Your task to perform on an android device: Open network settings Image 0: 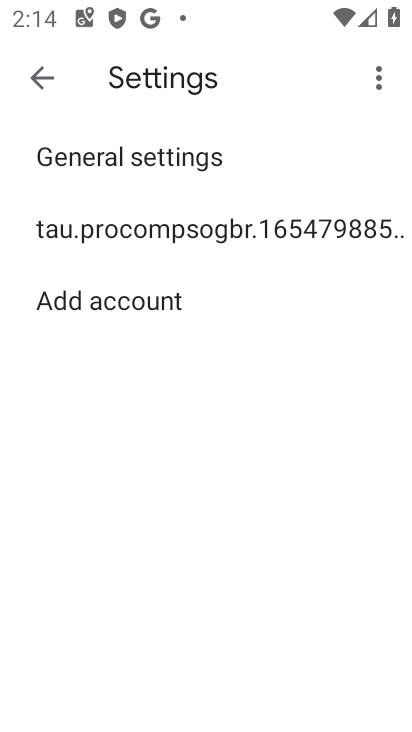
Step 0: press back button
Your task to perform on an android device: Open network settings Image 1: 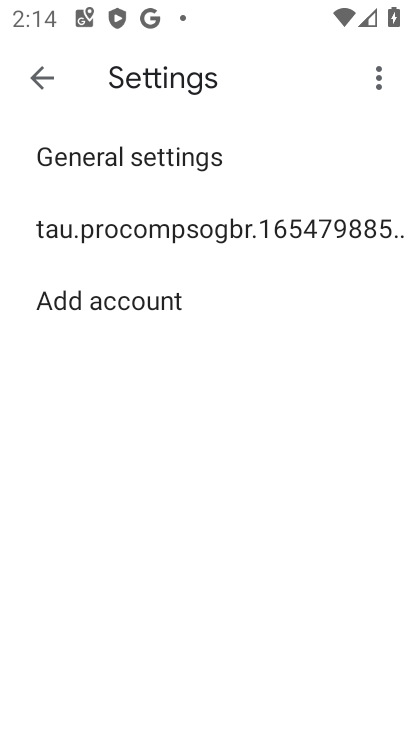
Step 1: press back button
Your task to perform on an android device: Open network settings Image 2: 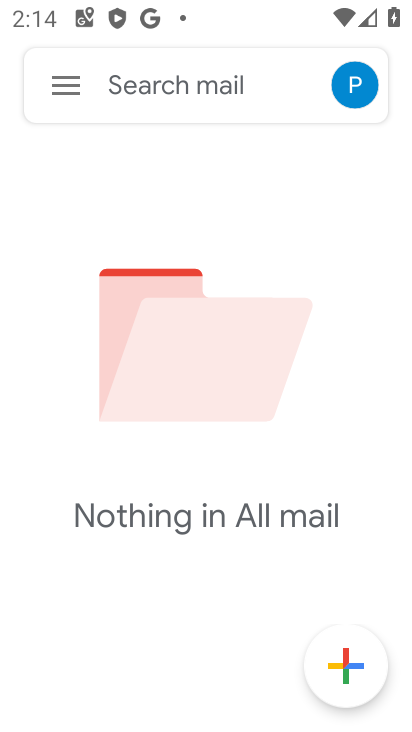
Step 2: press back button
Your task to perform on an android device: Open network settings Image 3: 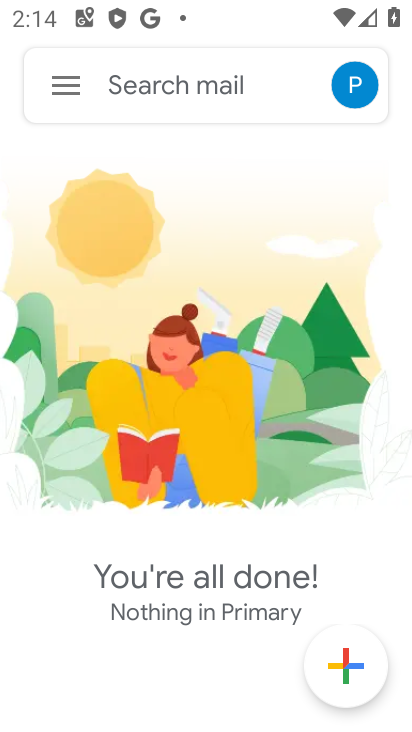
Step 3: press back button
Your task to perform on an android device: Open network settings Image 4: 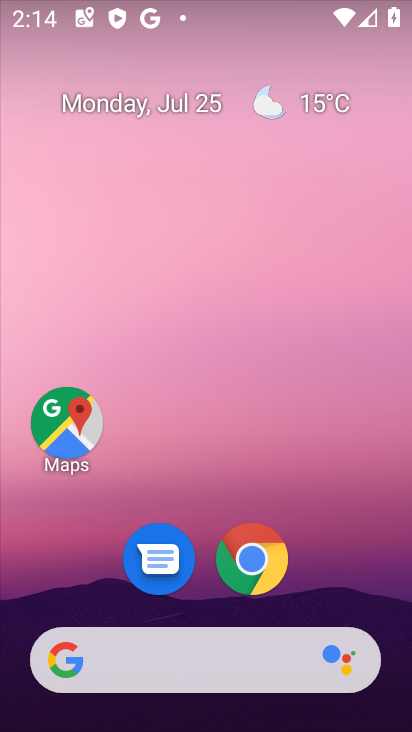
Step 4: drag from (181, 608) to (211, 11)
Your task to perform on an android device: Open network settings Image 5: 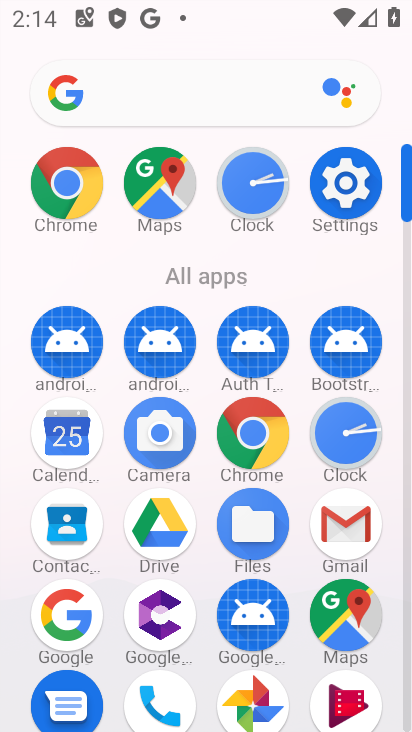
Step 5: click (345, 176)
Your task to perform on an android device: Open network settings Image 6: 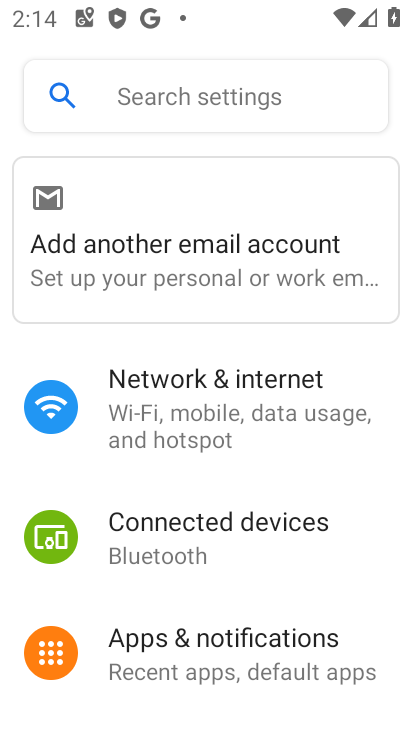
Step 6: click (251, 403)
Your task to perform on an android device: Open network settings Image 7: 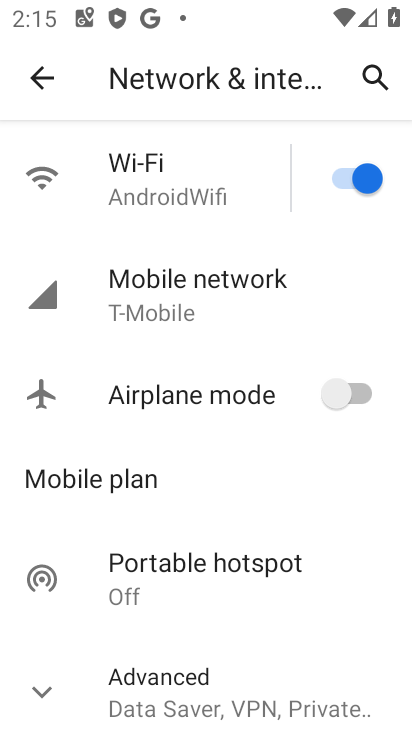
Step 7: task complete